Your task to perform on an android device: change notifications settings Image 0: 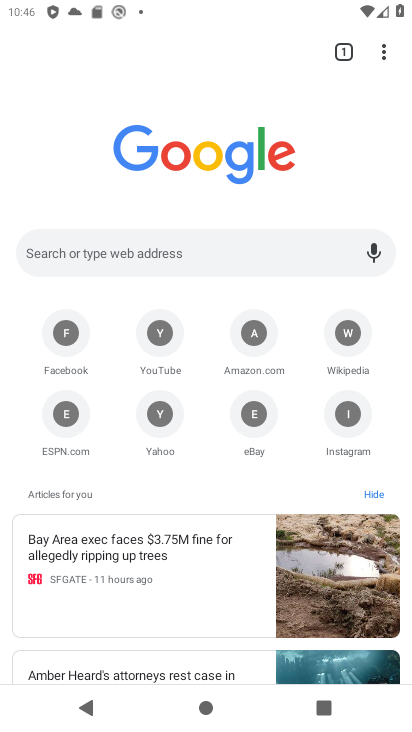
Step 0: press home button
Your task to perform on an android device: change notifications settings Image 1: 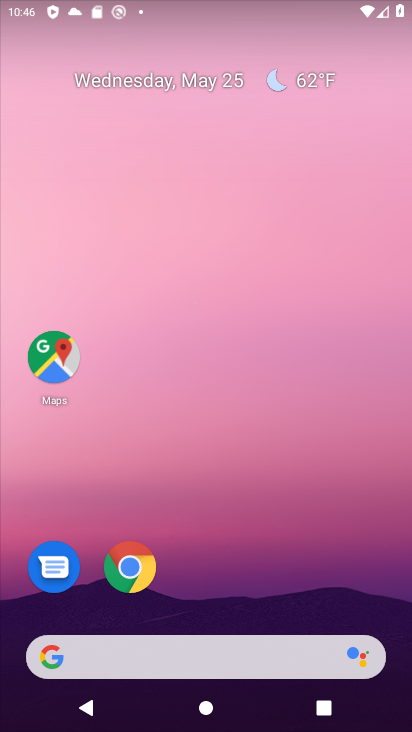
Step 1: drag from (387, 605) to (287, 70)
Your task to perform on an android device: change notifications settings Image 2: 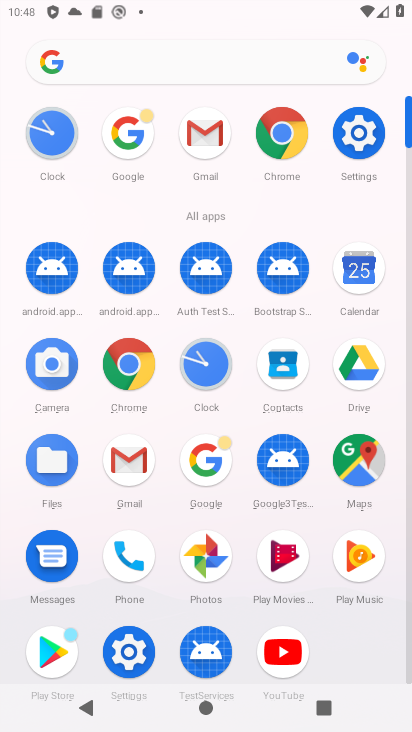
Step 2: click (121, 654)
Your task to perform on an android device: change notifications settings Image 3: 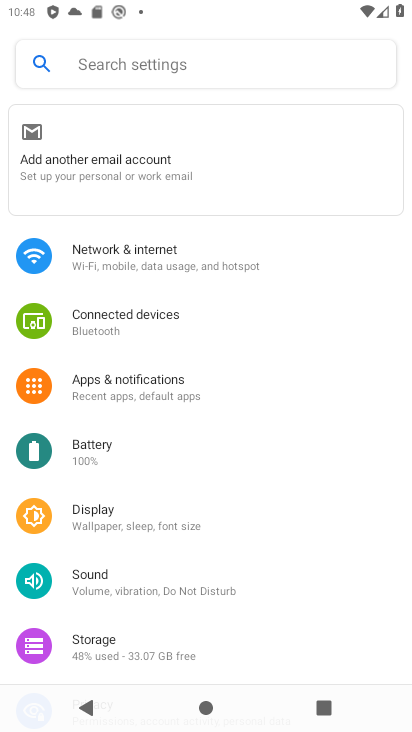
Step 3: click (138, 372)
Your task to perform on an android device: change notifications settings Image 4: 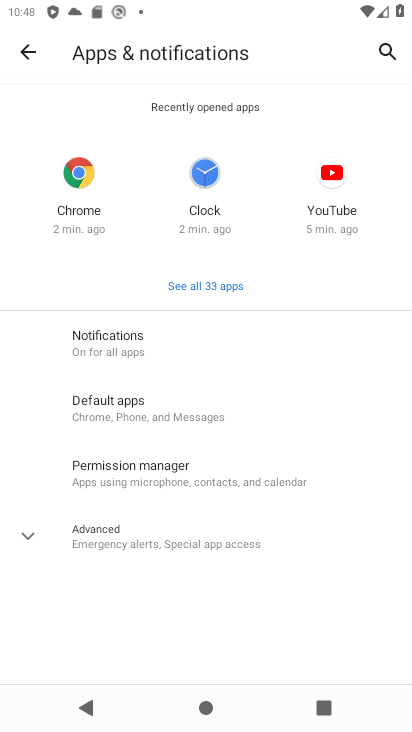
Step 4: task complete